Your task to perform on an android device: Go to display settings Image 0: 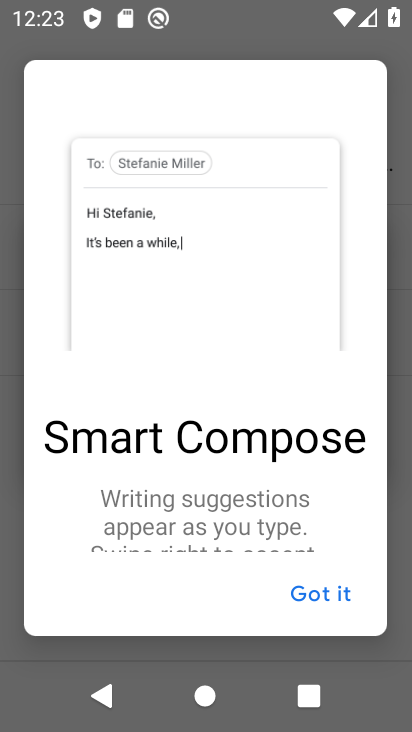
Step 0: press home button
Your task to perform on an android device: Go to display settings Image 1: 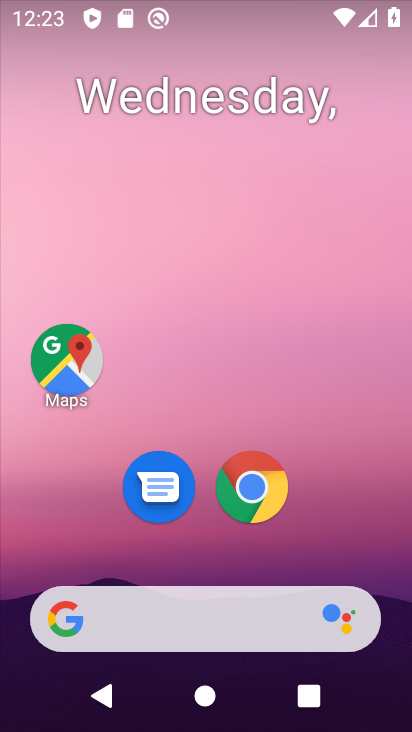
Step 1: drag from (324, 498) to (314, 219)
Your task to perform on an android device: Go to display settings Image 2: 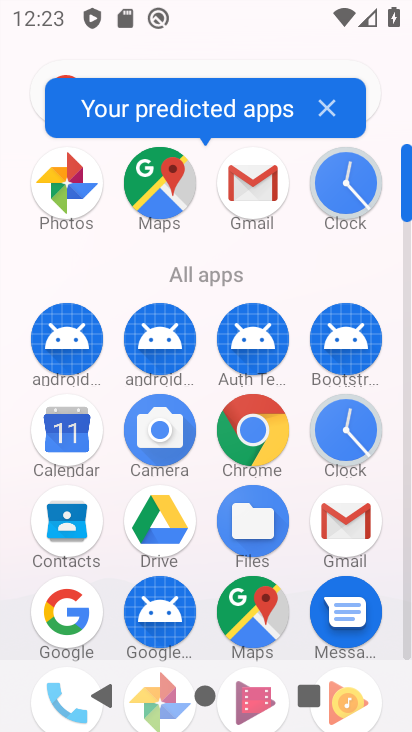
Step 2: drag from (202, 616) to (209, 281)
Your task to perform on an android device: Go to display settings Image 3: 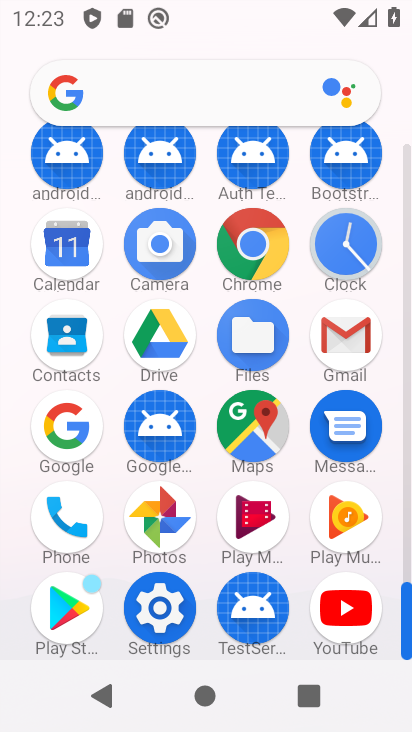
Step 3: click (161, 613)
Your task to perform on an android device: Go to display settings Image 4: 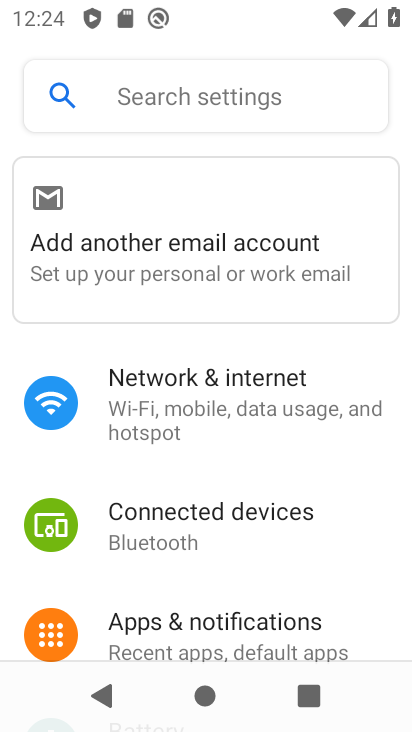
Step 4: drag from (268, 608) to (300, 280)
Your task to perform on an android device: Go to display settings Image 5: 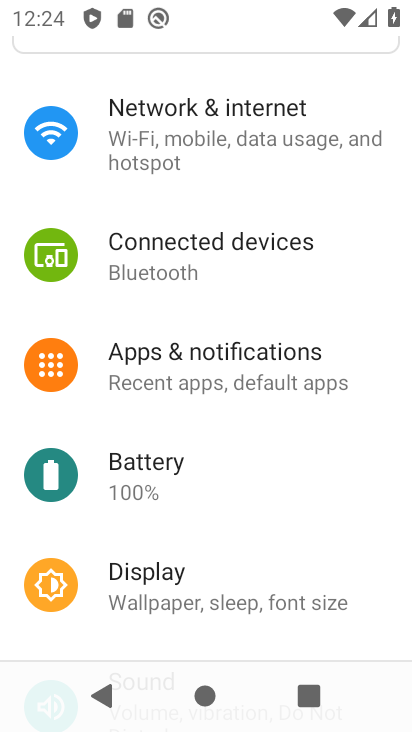
Step 5: click (238, 603)
Your task to perform on an android device: Go to display settings Image 6: 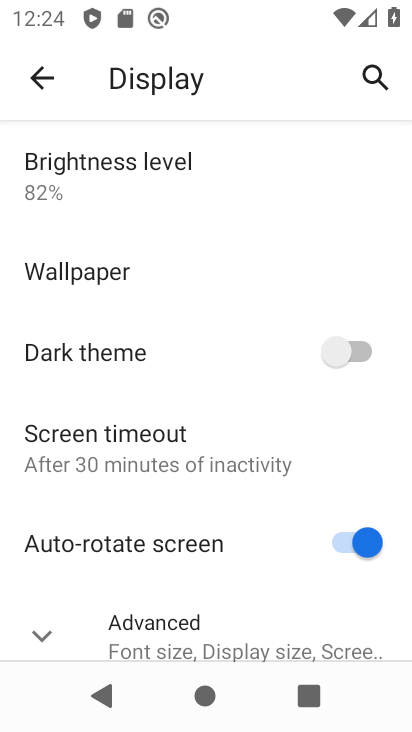
Step 6: task complete